Your task to perform on an android device: Do I have any events today? Image 0: 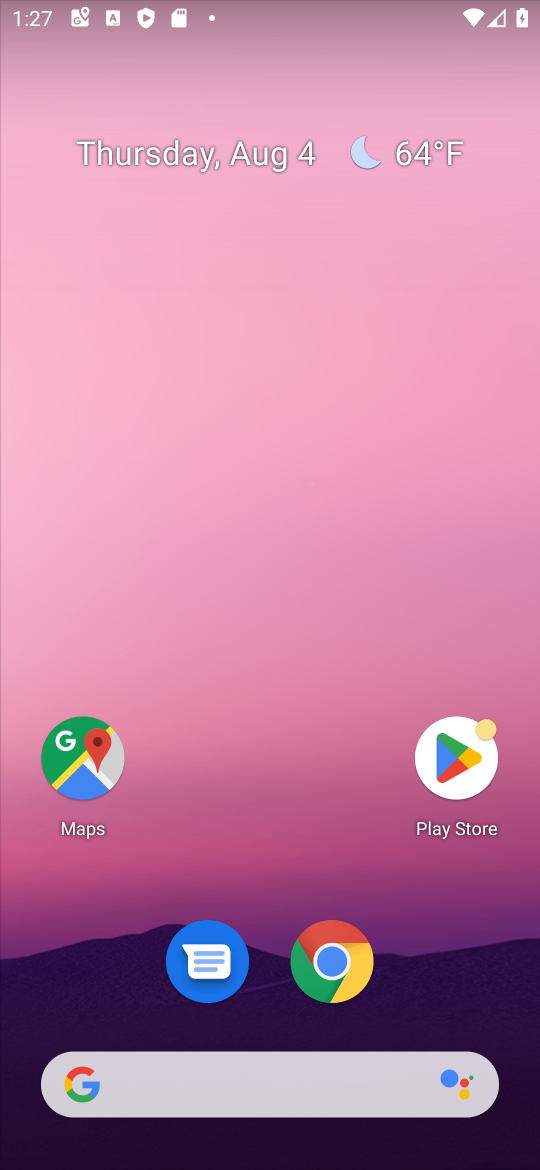
Step 0: drag from (278, 788) to (412, 0)
Your task to perform on an android device: Do I have any events today? Image 1: 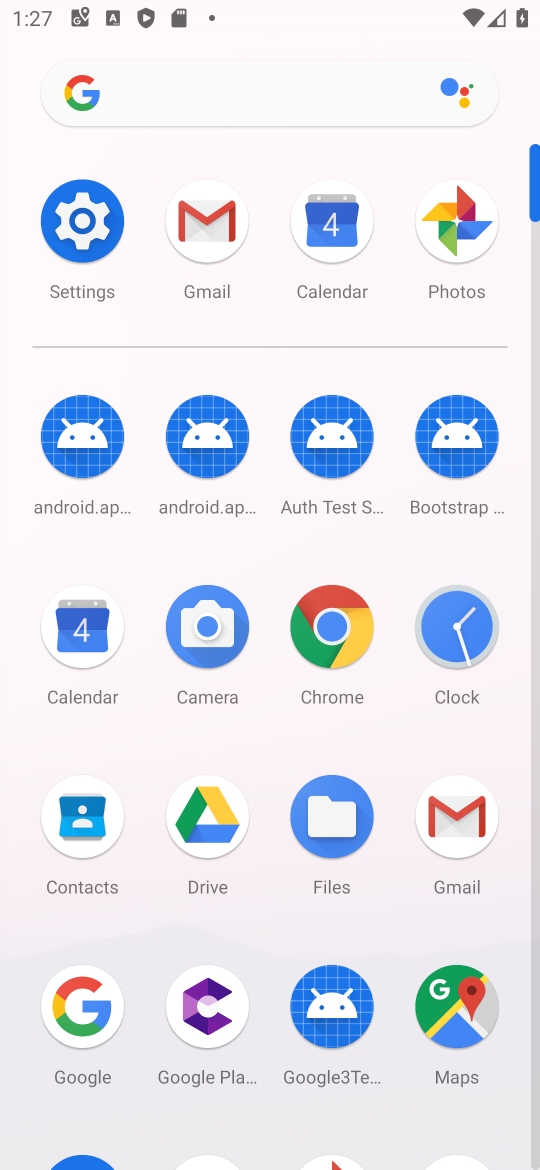
Step 1: click (91, 635)
Your task to perform on an android device: Do I have any events today? Image 2: 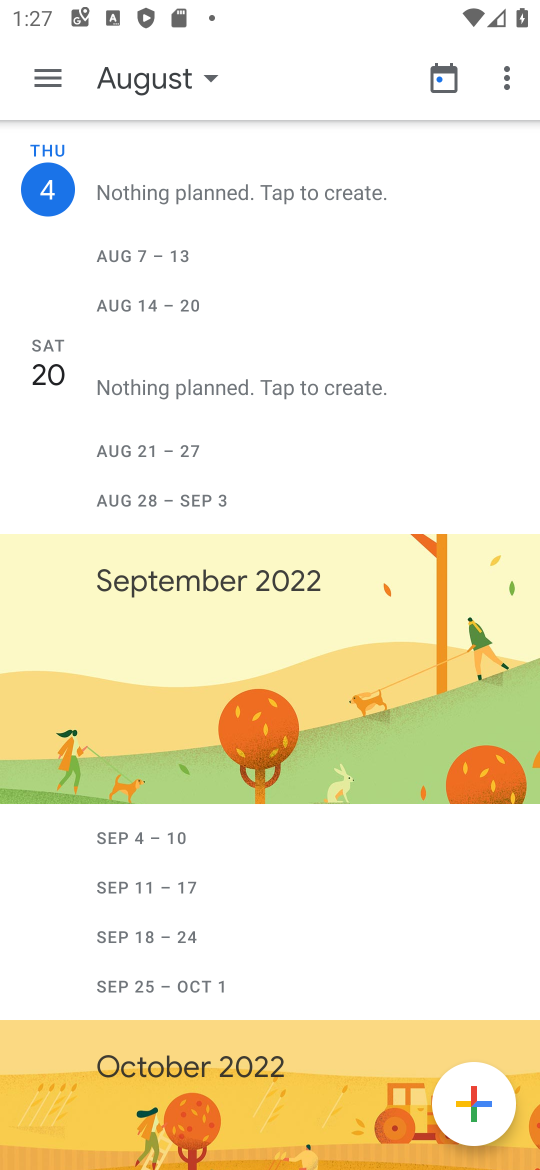
Step 2: task complete